Your task to perform on an android device: turn off priority inbox in the gmail app Image 0: 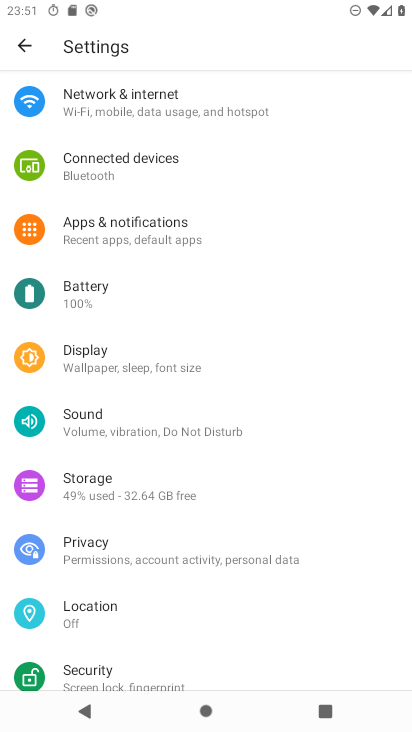
Step 0: press home button
Your task to perform on an android device: turn off priority inbox in the gmail app Image 1: 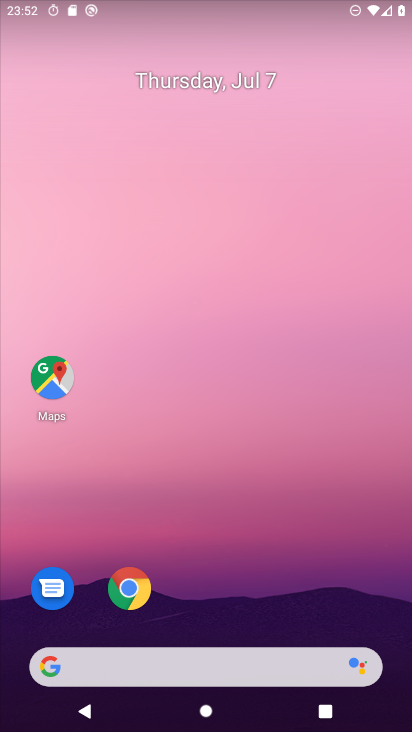
Step 1: drag from (263, 511) to (300, 151)
Your task to perform on an android device: turn off priority inbox in the gmail app Image 2: 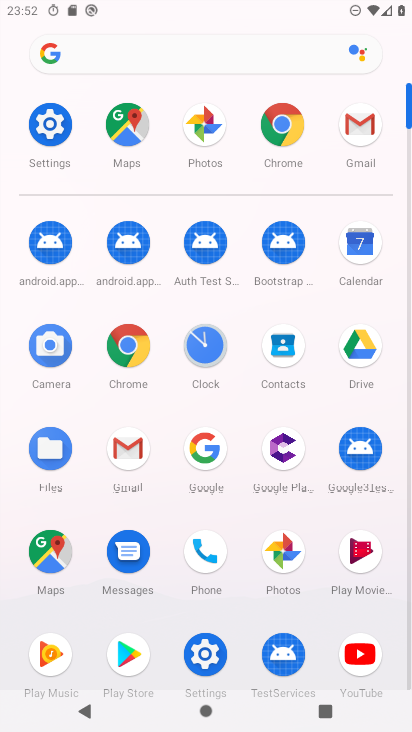
Step 2: click (362, 131)
Your task to perform on an android device: turn off priority inbox in the gmail app Image 3: 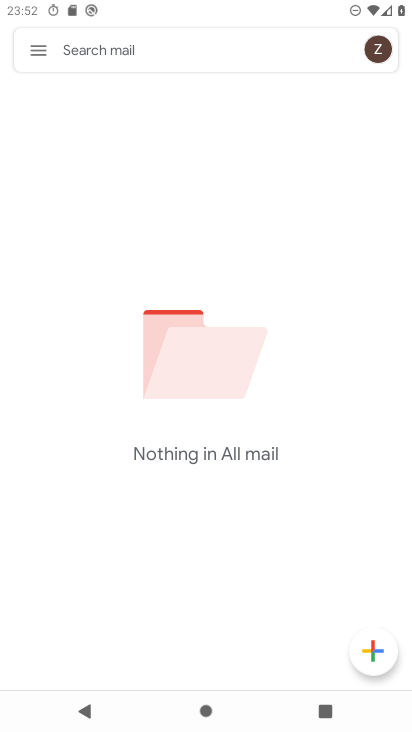
Step 3: click (38, 47)
Your task to perform on an android device: turn off priority inbox in the gmail app Image 4: 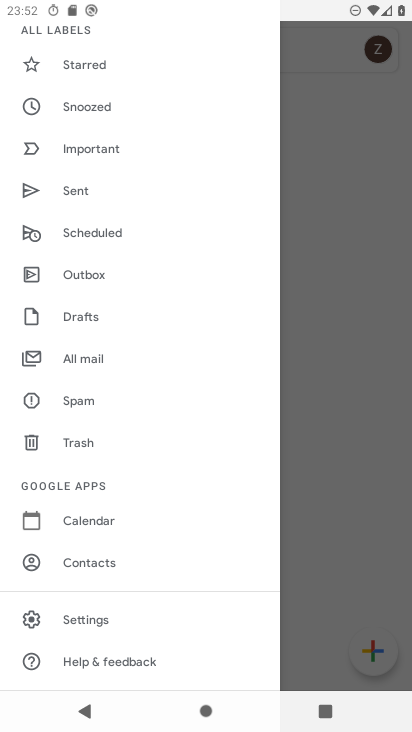
Step 4: drag from (142, 602) to (162, 199)
Your task to perform on an android device: turn off priority inbox in the gmail app Image 5: 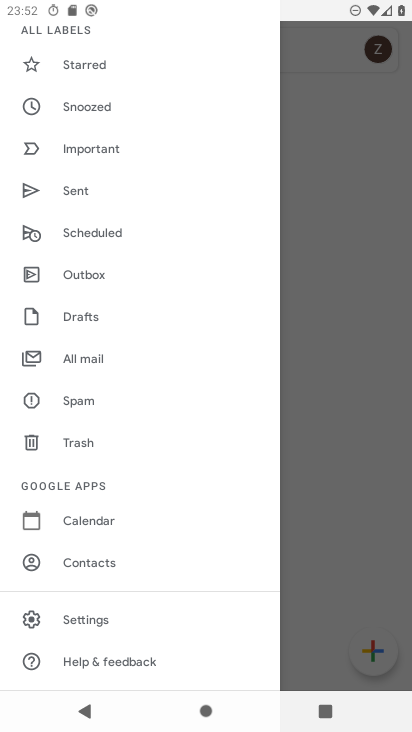
Step 5: click (92, 616)
Your task to perform on an android device: turn off priority inbox in the gmail app Image 6: 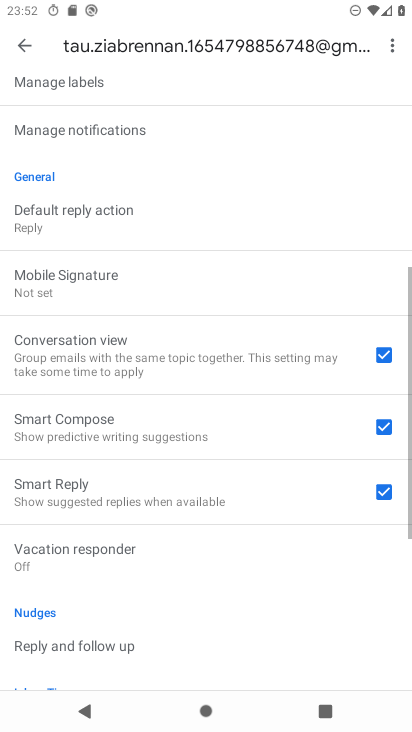
Step 6: drag from (180, 155) to (175, 654)
Your task to perform on an android device: turn off priority inbox in the gmail app Image 7: 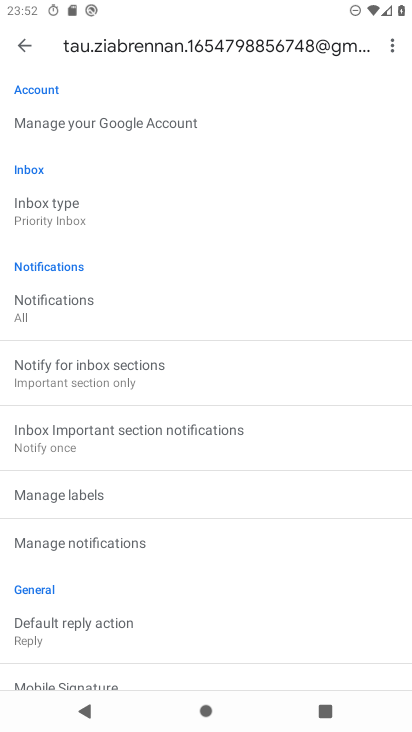
Step 7: click (68, 214)
Your task to perform on an android device: turn off priority inbox in the gmail app Image 8: 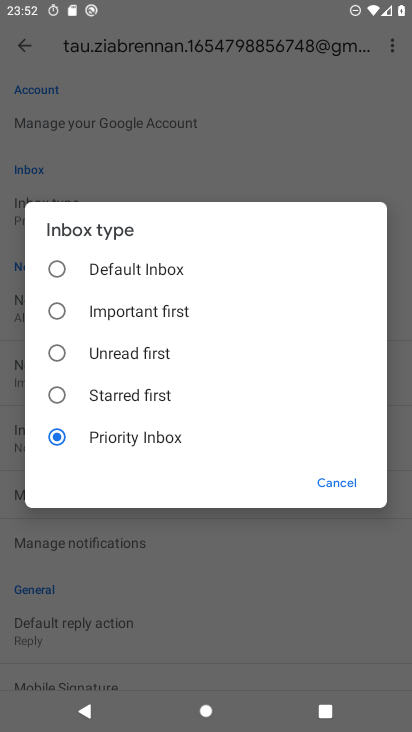
Step 8: task complete